Your task to perform on an android device: check battery use Image 0: 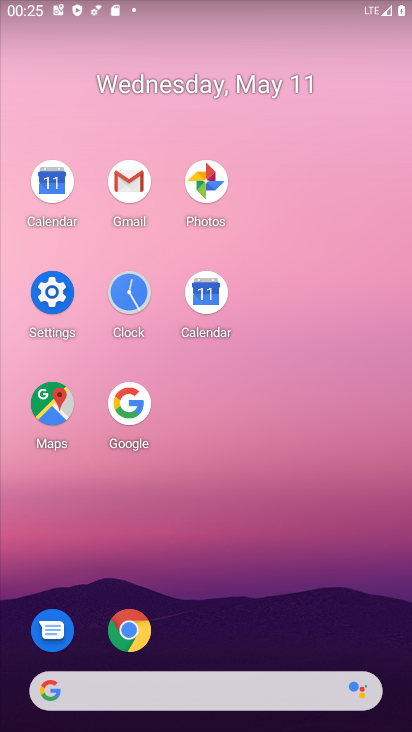
Step 0: click (60, 302)
Your task to perform on an android device: check battery use Image 1: 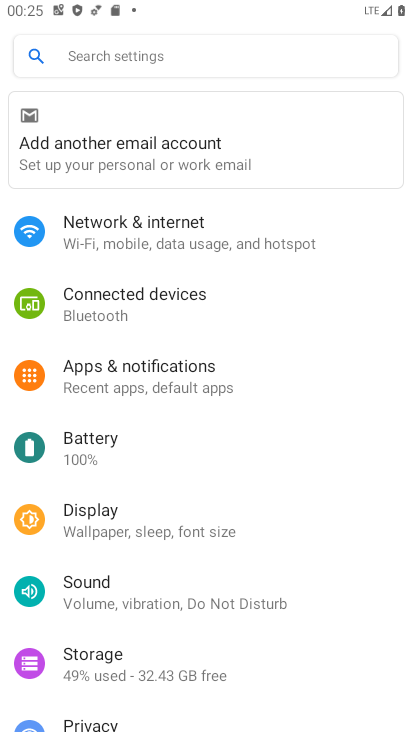
Step 1: click (185, 471)
Your task to perform on an android device: check battery use Image 2: 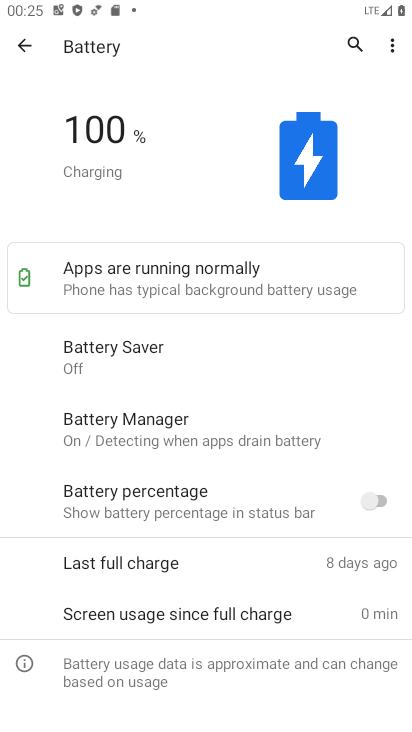
Step 2: click (386, 37)
Your task to perform on an android device: check battery use Image 3: 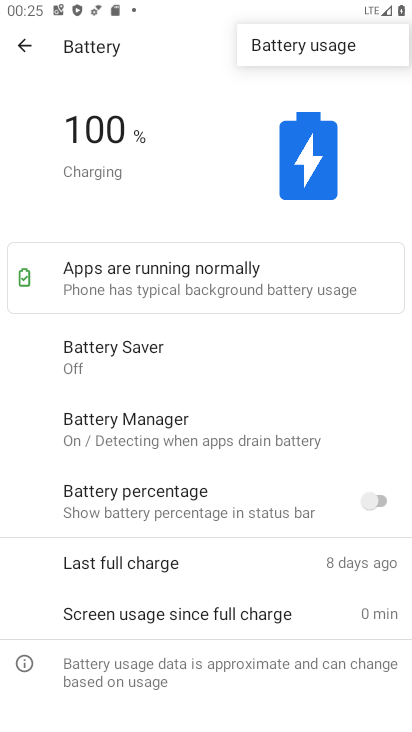
Step 3: click (310, 44)
Your task to perform on an android device: check battery use Image 4: 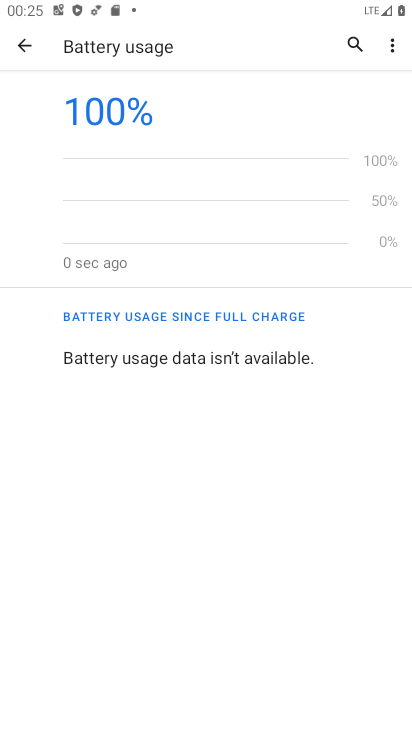
Step 4: task complete